Your task to perform on an android device: Open Maps and search for coffee Image 0: 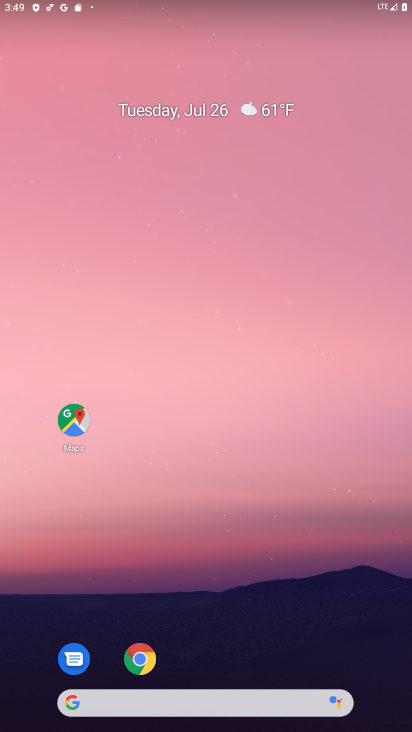
Step 0: drag from (313, 651) to (253, 47)
Your task to perform on an android device: Open Maps and search for coffee Image 1: 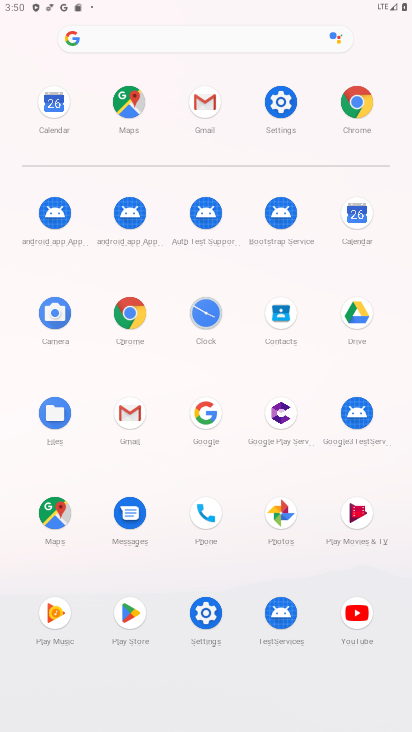
Step 1: click (129, 102)
Your task to perform on an android device: Open Maps and search for coffee Image 2: 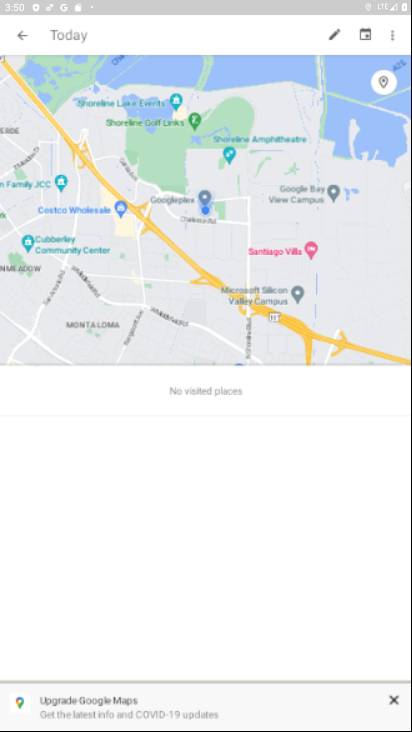
Step 2: click (15, 27)
Your task to perform on an android device: Open Maps and search for coffee Image 3: 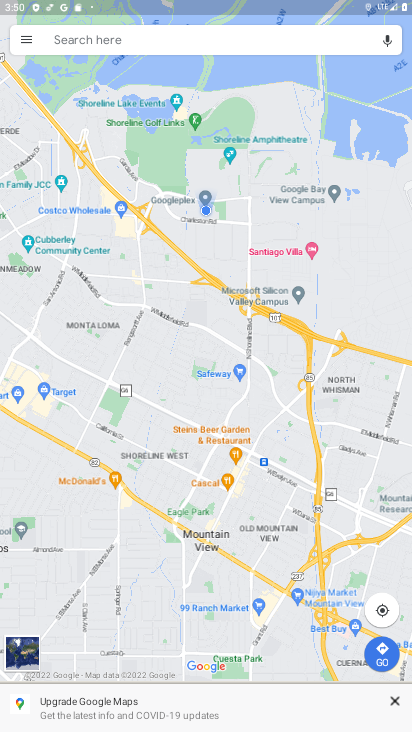
Step 3: click (177, 41)
Your task to perform on an android device: Open Maps and search for coffee Image 4: 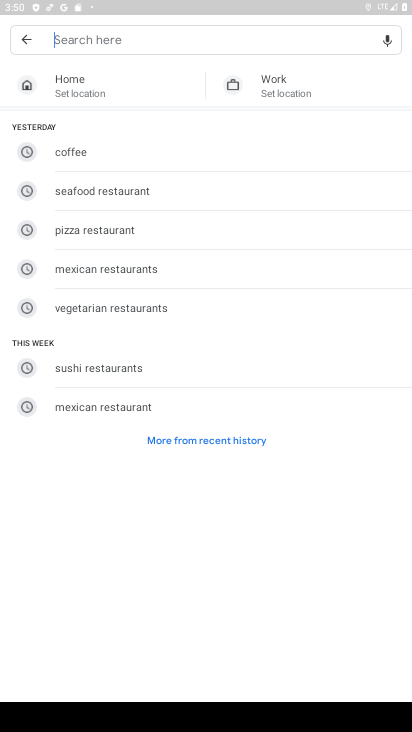
Step 4: type "coffee"
Your task to perform on an android device: Open Maps and search for coffee Image 5: 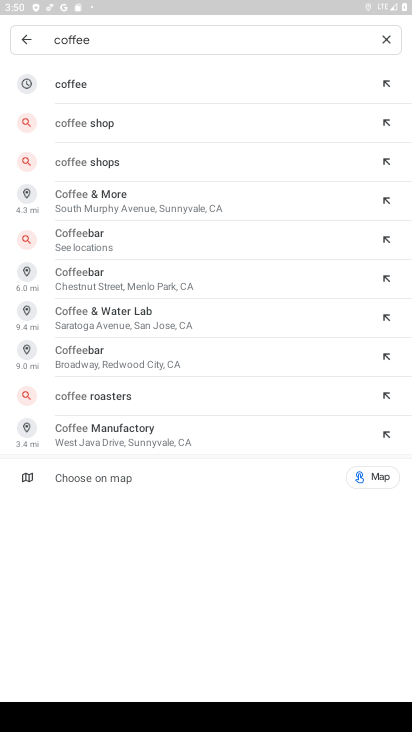
Step 5: press enter
Your task to perform on an android device: Open Maps and search for coffee Image 6: 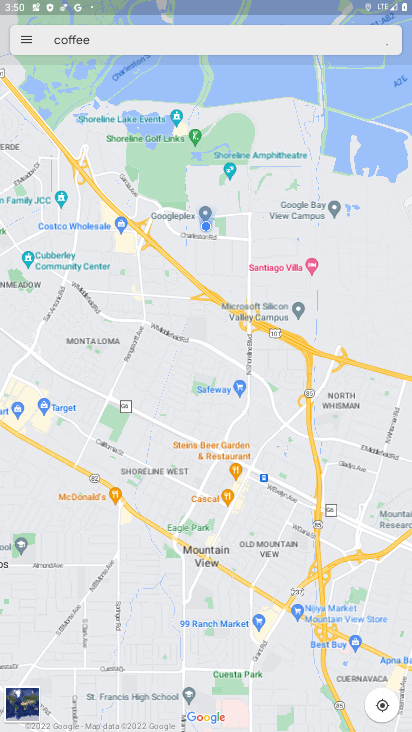
Step 6: click (68, 81)
Your task to perform on an android device: Open Maps and search for coffee Image 7: 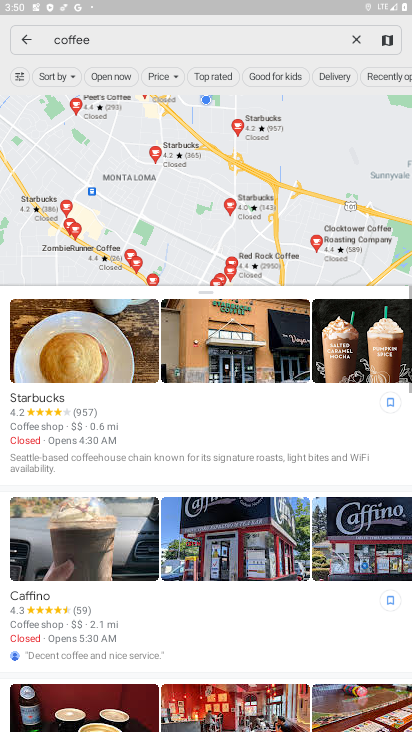
Step 7: task complete